Your task to perform on an android device: What is the news today? Image 0: 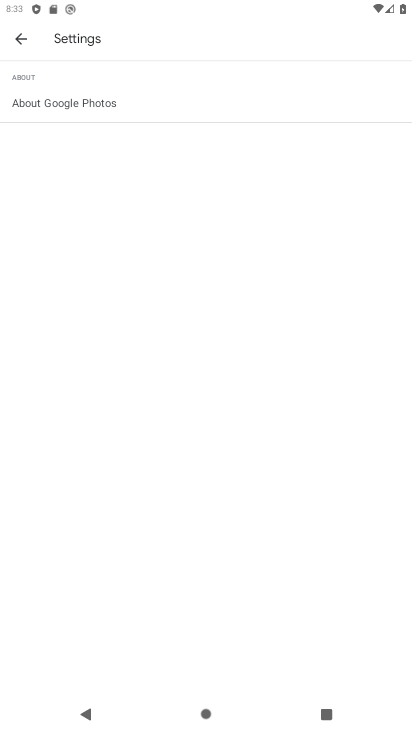
Step 0: press home button
Your task to perform on an android device: What is the news today? Image 1: 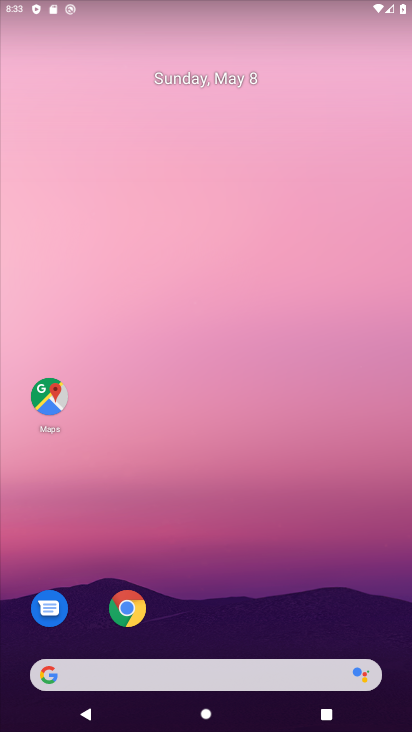
Step 1: task complete